Your task to perform on an android device: Go to eBay Image 0: 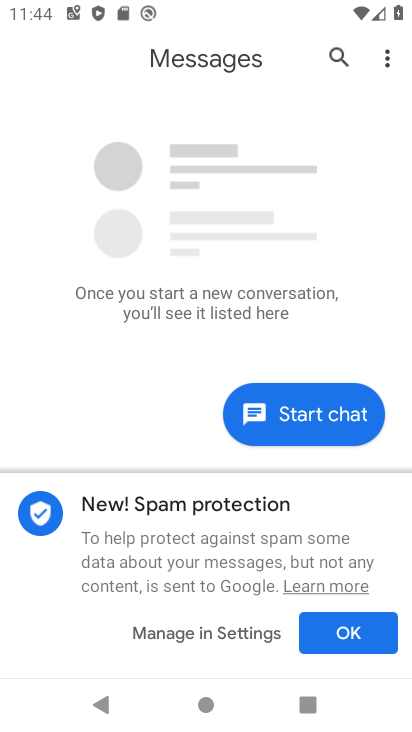
Step 0: drag from (198, 575) to (237, 386)
Your task to perform on an android device: Go to eBay Image 1: 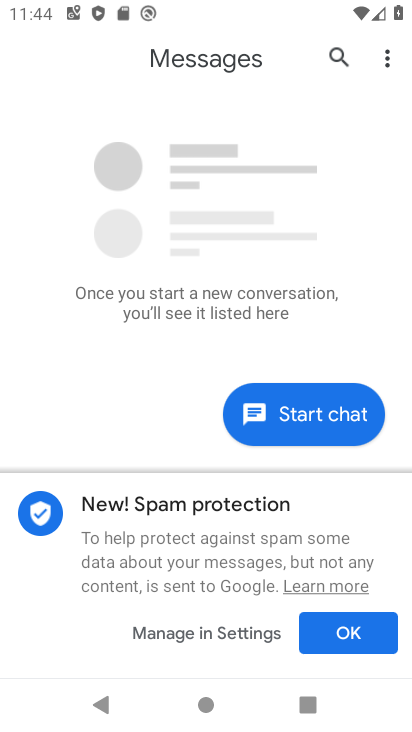
Step 1: press home button
Your task to perform on an android device: Go to eBay Image 2: 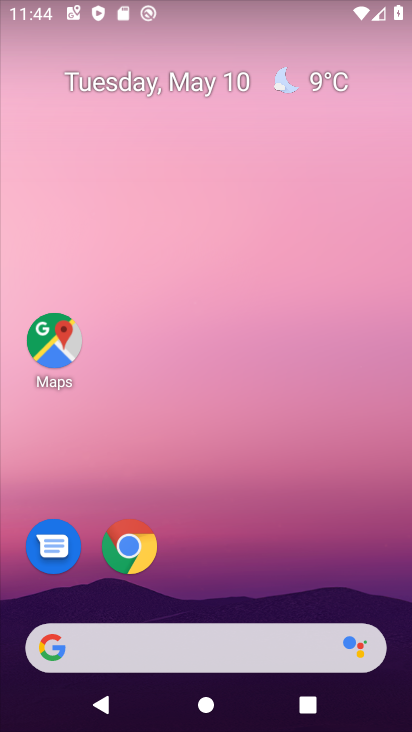
Step 2: drag from (215, 589) to (244, 307)
Your task to perform on an android device: Go to eBay Image 3: 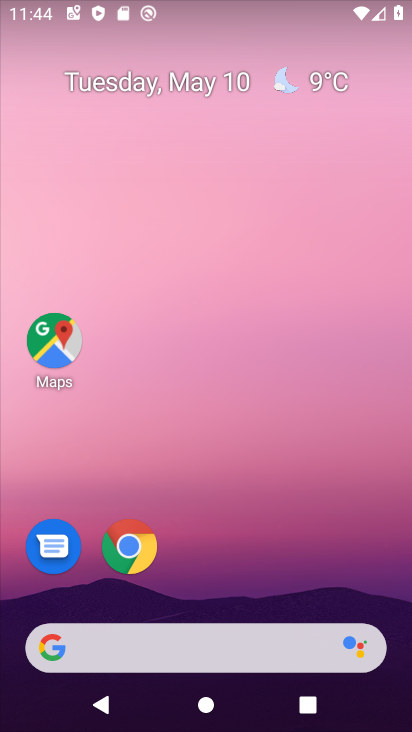
Step 3: drag from (188, 592) to (217, 260)
Your task to perform on an android device: Go to eBay Image 4: 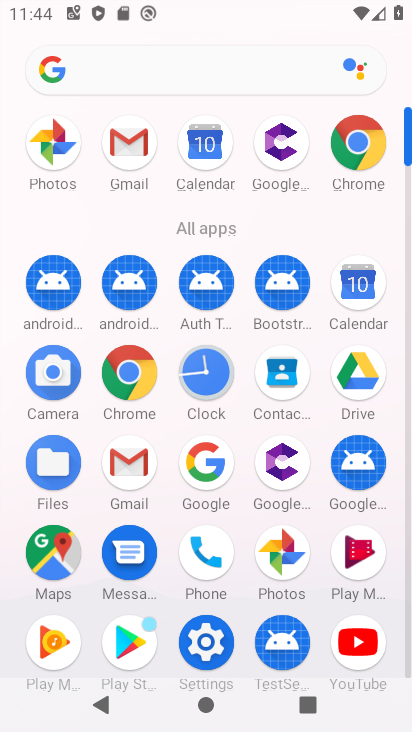
Step 4: click (165, 69)
Your task to perform on an android device: Go to eBay Image 5: 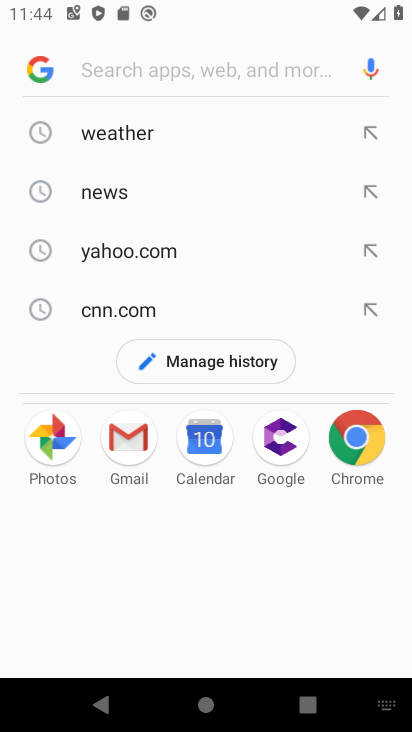
Step 5: click (225, 65)
Your task to perform on an android device: Go to eBay Image 6: 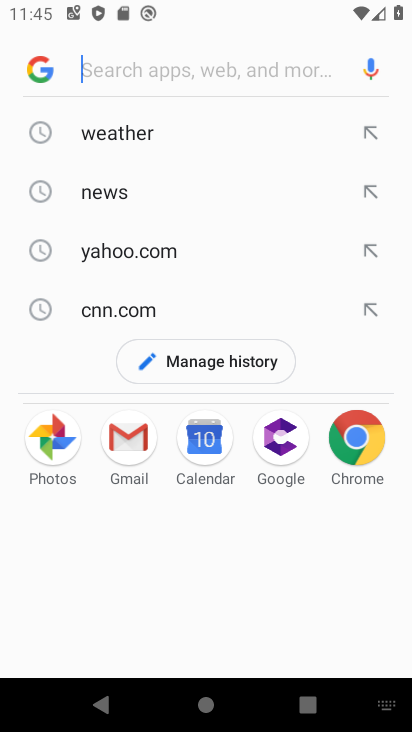
Step 6: type "ebay"
Your task to perform on an android device: Go to eBay Image 7: 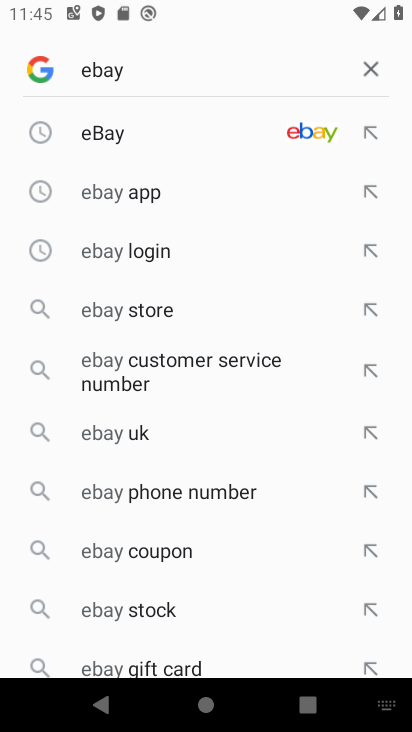
Step 7: click (155, 131)
Your task to perform on an android device: Go to eBay Image 8: 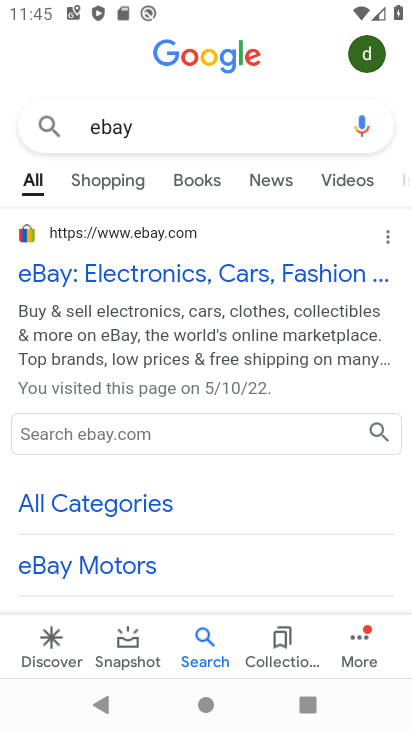
Step 8: click (147, 282)
Your task to perform on an android device: Go to eBay Image 9: 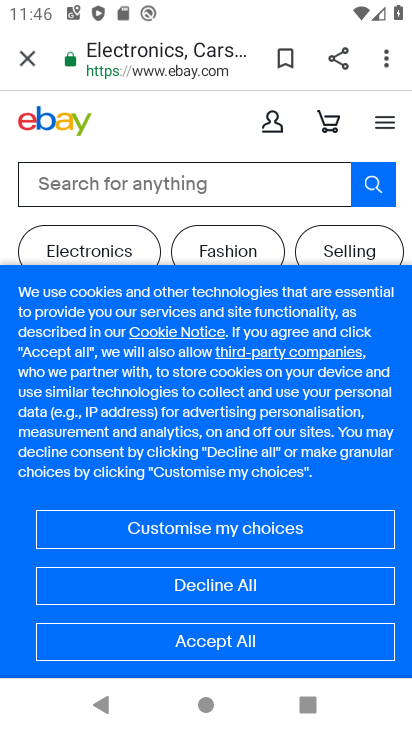
Step 9: task complete